Your task to perform on an android device: Go to Maps Image 0: 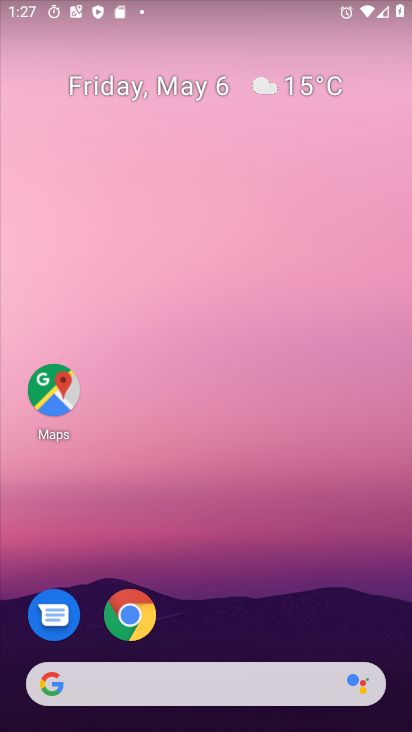
Step 0: drag from (281, 590) to (288, 65)
Your task to perform on an android device: Go to Maps Image 1: 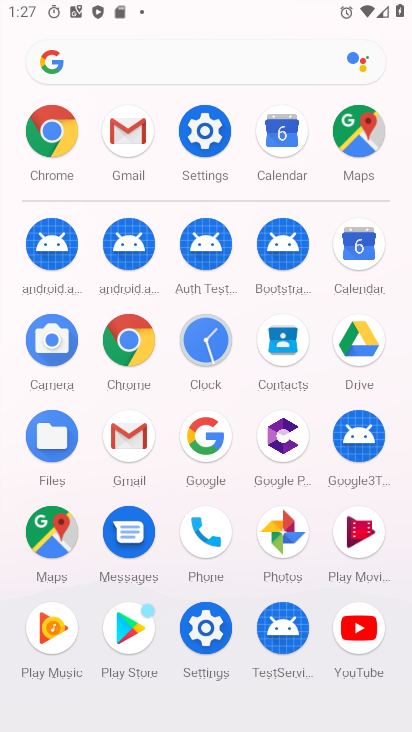
Step 1: click (42, 534)
Your task to perform on an android device: Go to Maps Image 2: 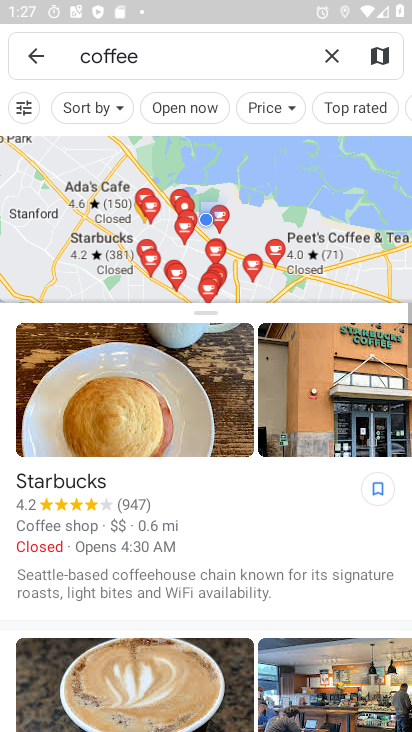
Step 2: click (335, 58)
Your task to perform on an android device: Go to Maps Image 3: 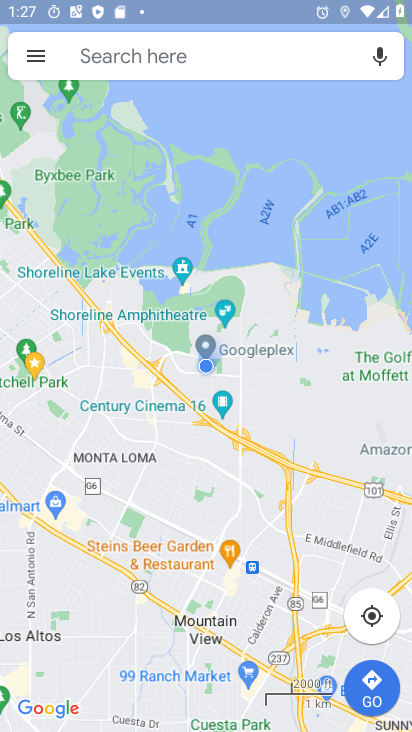
Step 3: task complete